Your task to perform on an android device: read, delete, or share a saved page in the chrome app Image 0: 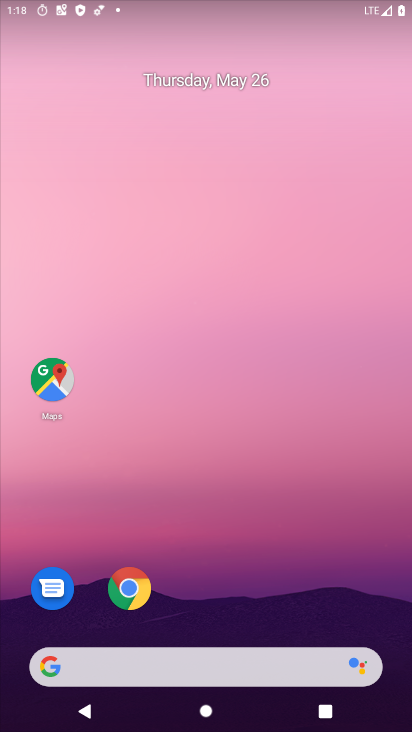
Step 0: click (140, 577)
Your task to perform on an android device: read, delete, or share a saved page in the chrome app Image 1: 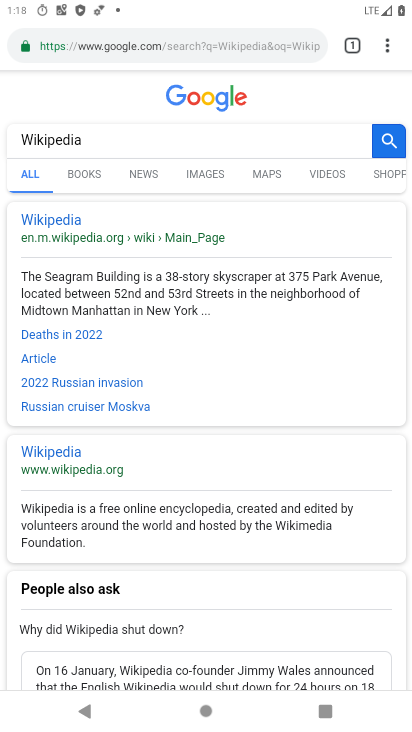
Step 1: click (384, 44)
Your task to perform on an android device: read, delete, or share a saved page in the chrome app Image 2: 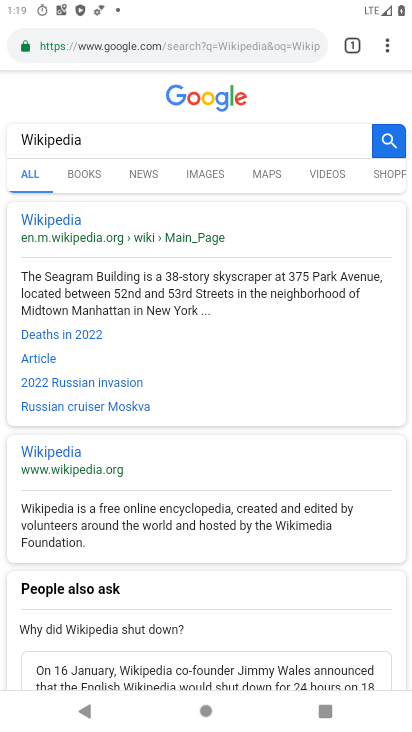
Step 2: click (391, 52)
Your task to perform on an android device: read, delete, or share a saved page in the chrome app Image 3: 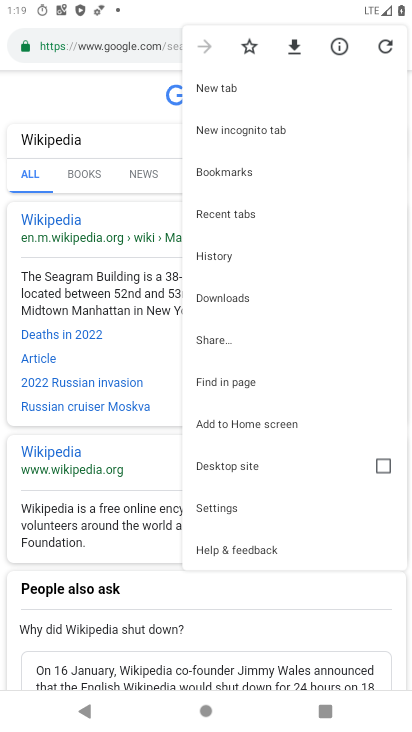
Step 3: click (207, 293)
Your task to perform on an android device: read, delete, or share a saved page in the chrome app Image 4: 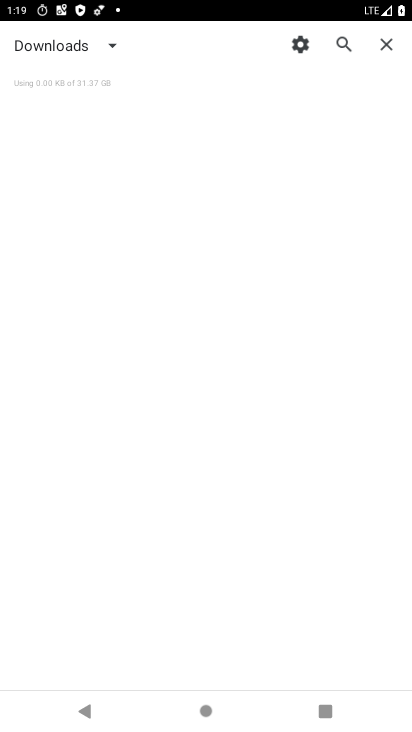
Step 4: task complete